Your task to perform on an android device: turn on airplane mode Image 0: 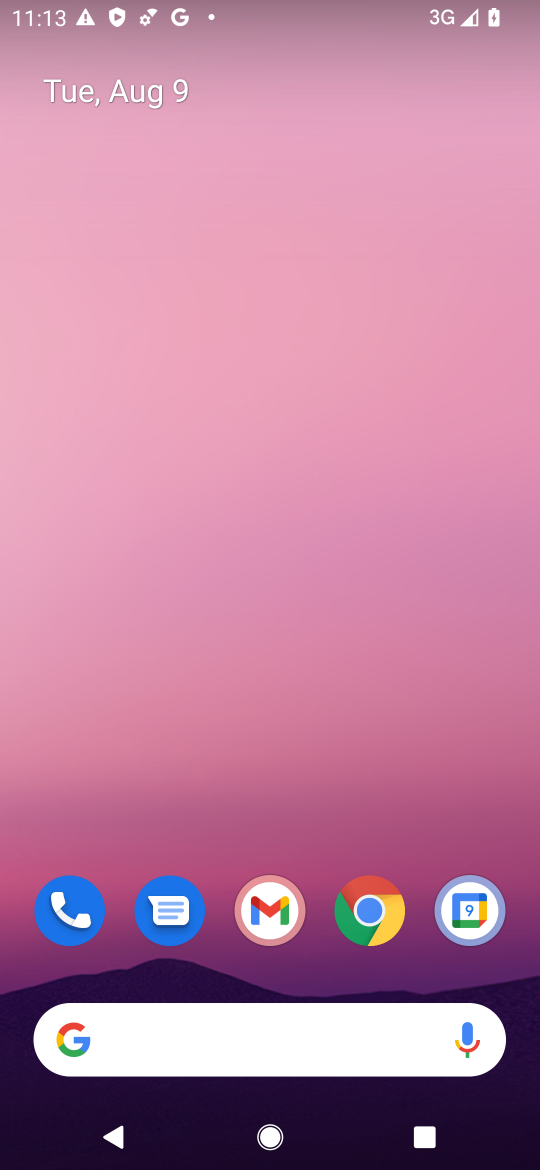
Step 0: drag from (489, 5) to (389, 683)
Your task to perform on an android device: turn on airplane mode Image 1: 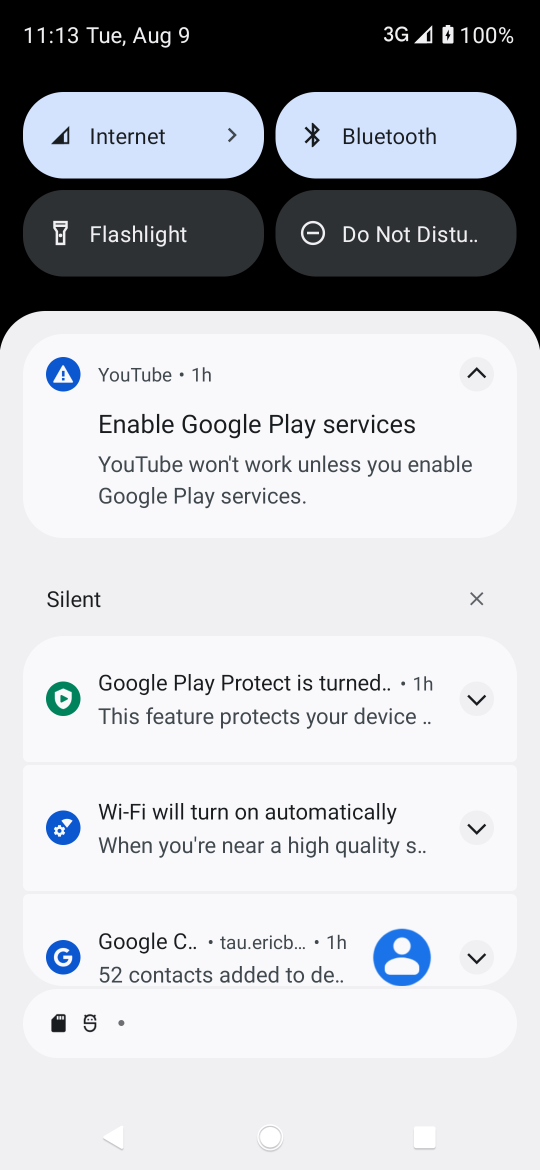
Step 1: press home button
Your task to perform on an android device: turn on airplane mode Image 2: 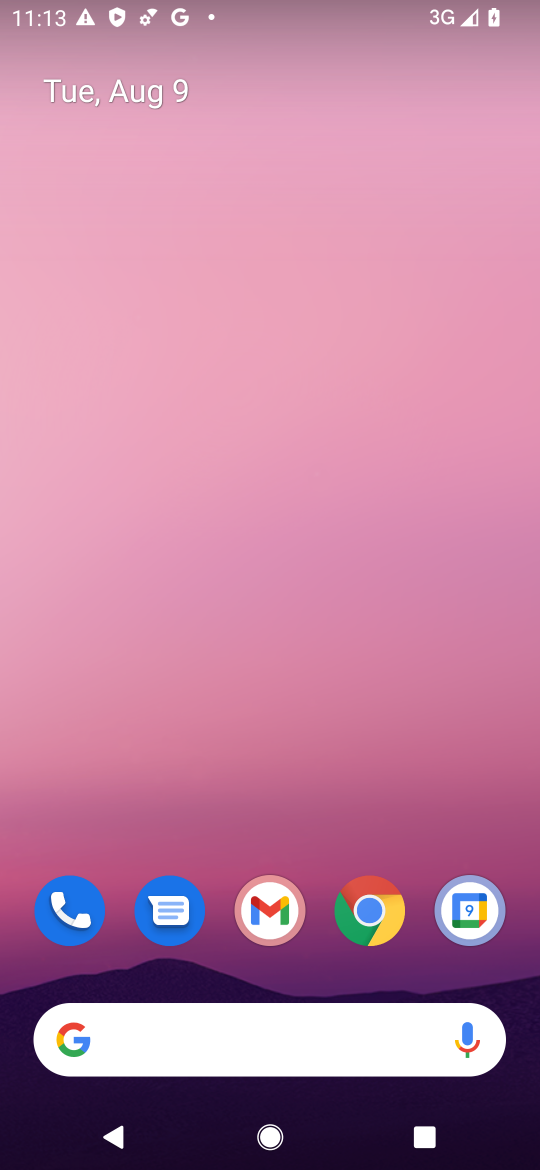
Step 2: drag from (98, 714) to (290, 127)
Your task to perform on an android device: turn on airplane mode Image 3: 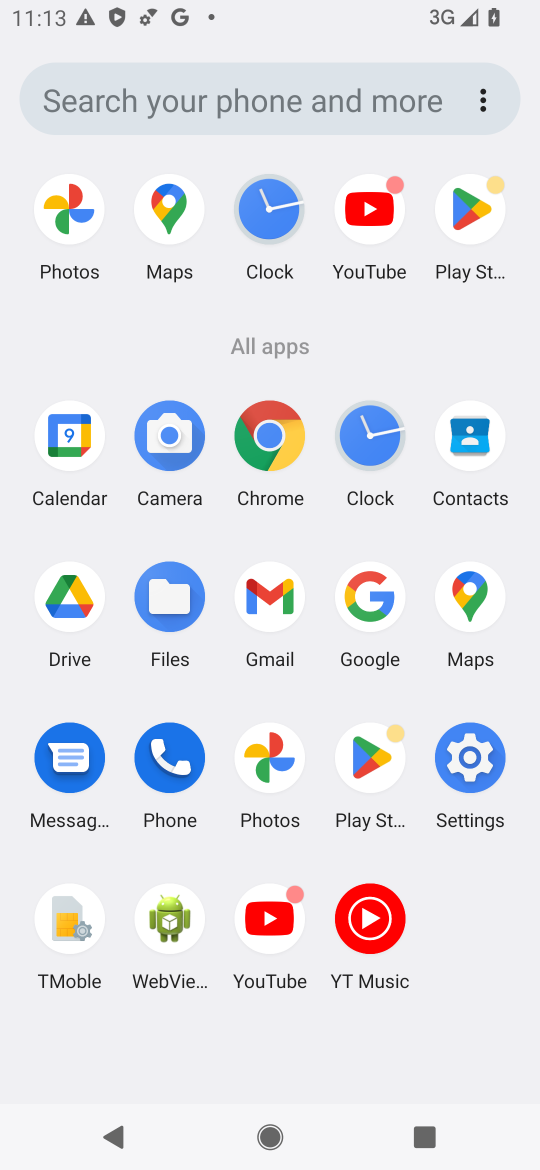
Step 3: click (483, 752)
Your task to perform on an android device: turn on airplane mode Image 4: 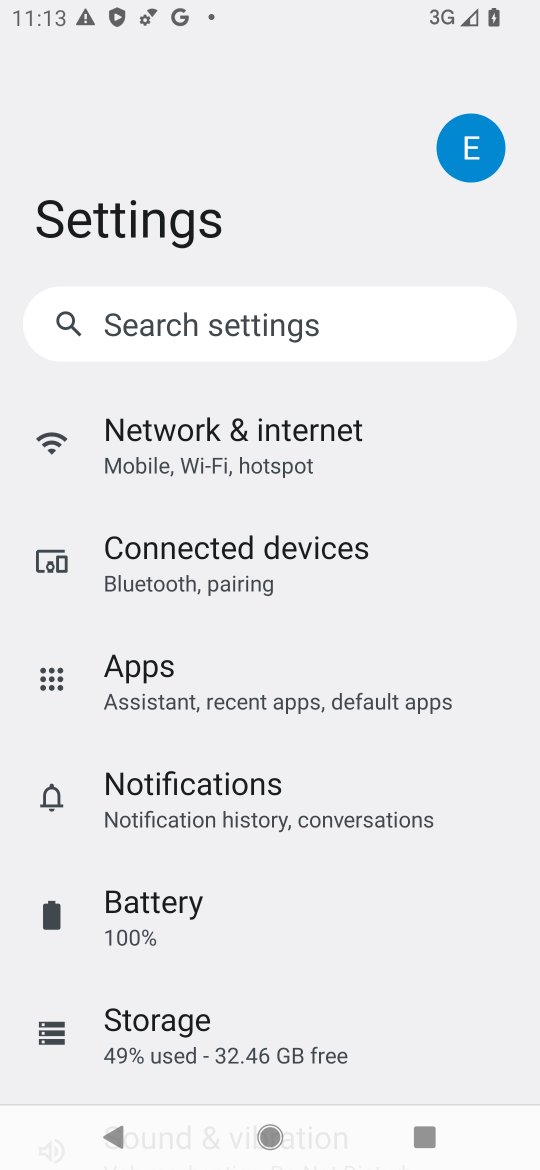
Step 4: click (219, 437)
Your task to perform on an android device: turn on airplane mode Image 5: 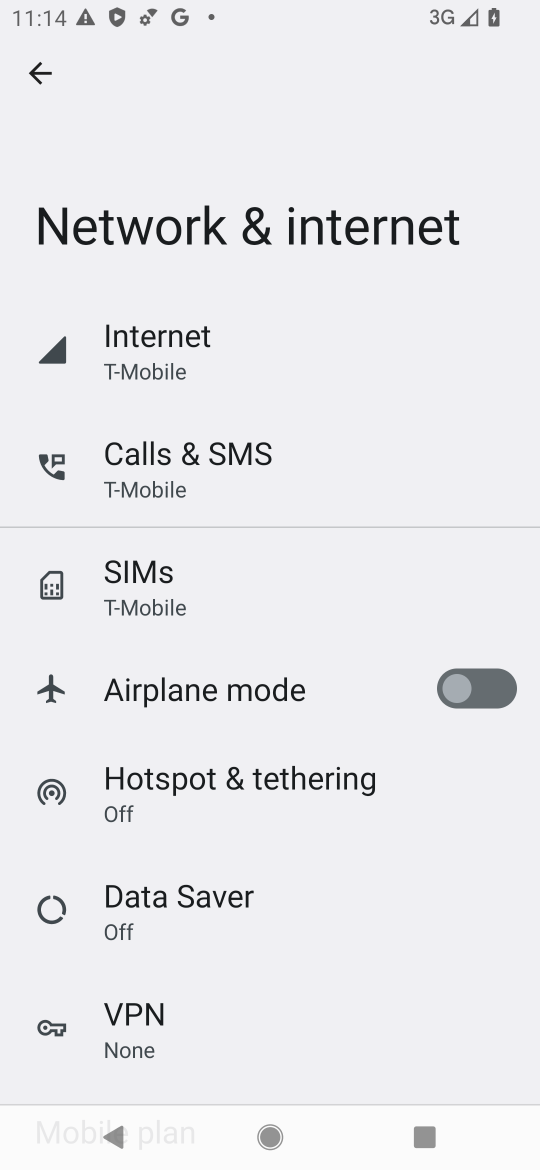
Step 5: click (447, 688)
Your task to perform on an android device: turn on airplane mode Image 6: 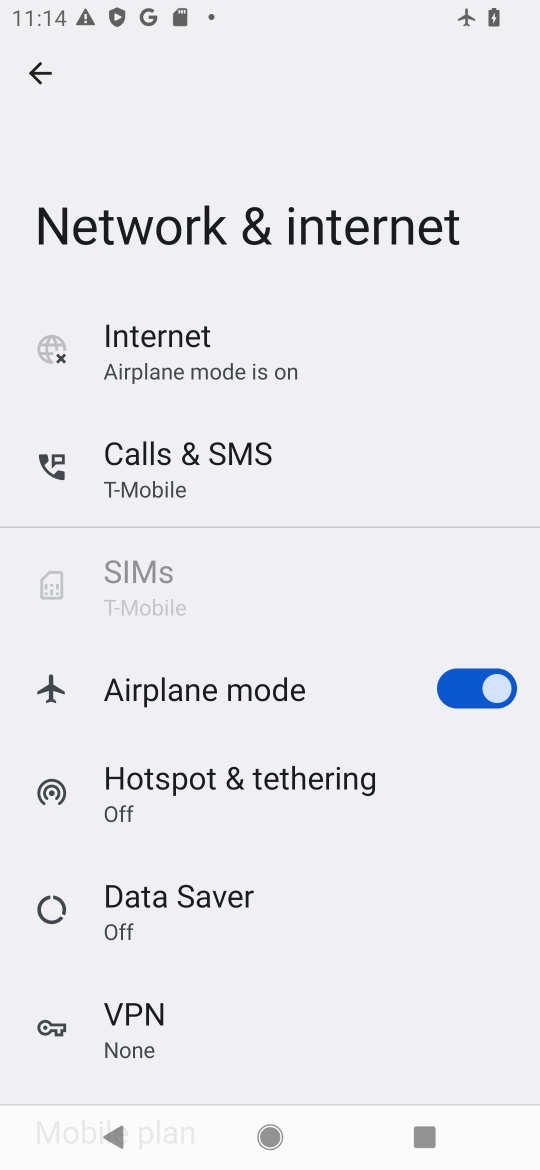
Step 6: task complete